Your task to perform on an android device: Search for seafood restaurants on Google Maps Image 0: 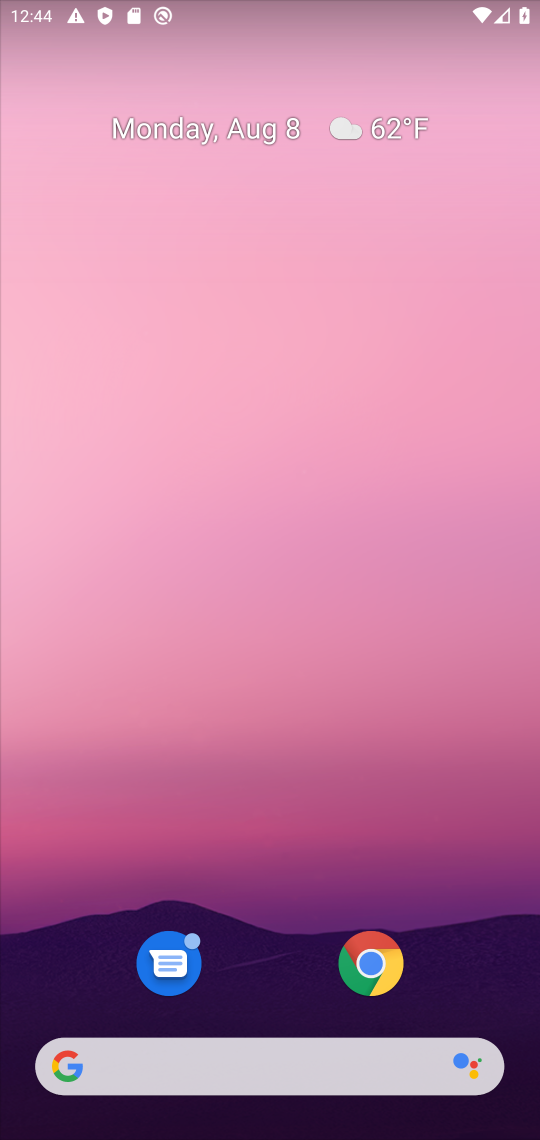
Step 0: drag from (474, 954) to (188, 64)
Your task to perform on an android device: Search for seafood restaurants on Google Maps Image 1: 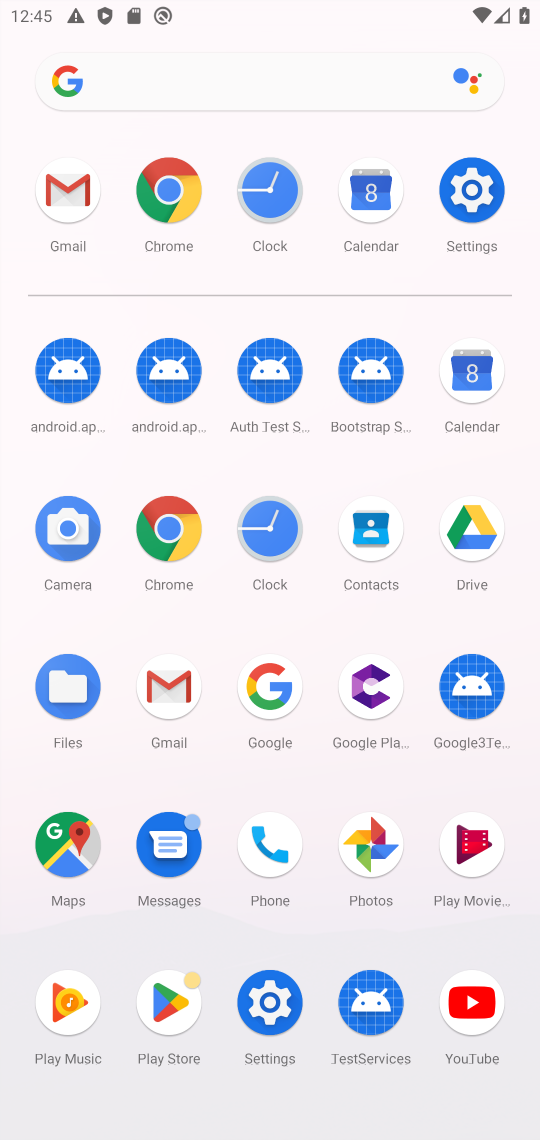
Step 1: click (59, 870)
Your task to perform on an android device: Search for seafood restaurants on Google Maps Image 2: 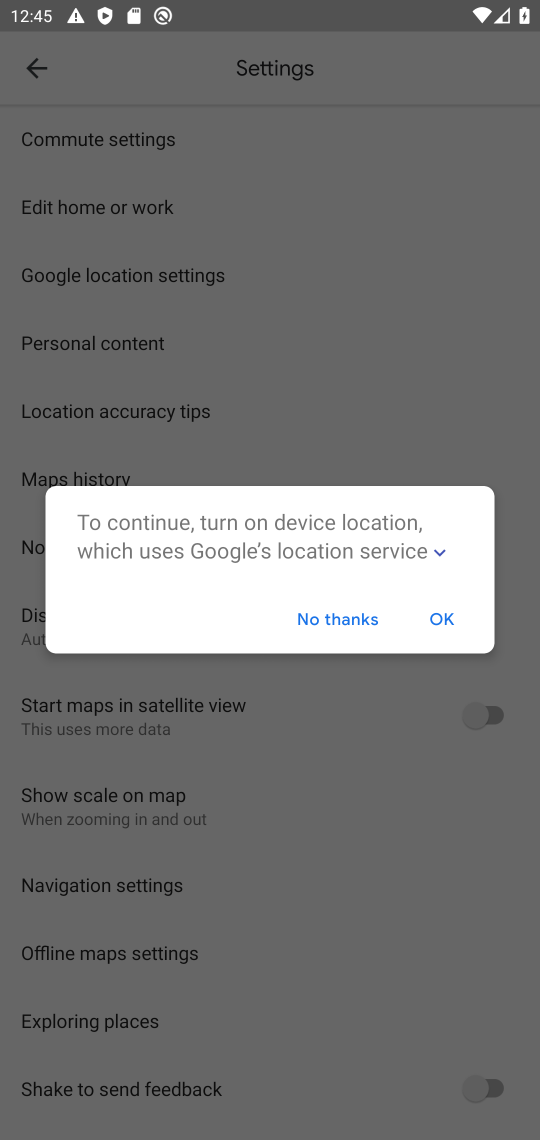
Step 2: click (348, 612)
Your task to perform on an android device: Search for seafood restaurants on Google Maps Image 3: 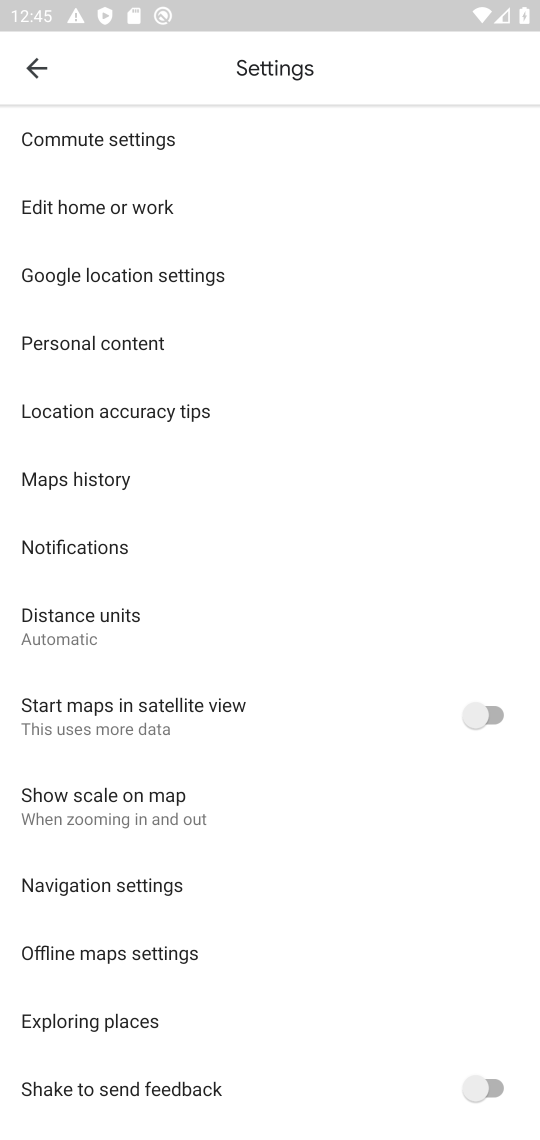
Step 3: press back button
Your task to perform on an android device: Search for seafood restaurants on Google Maps Image 4: 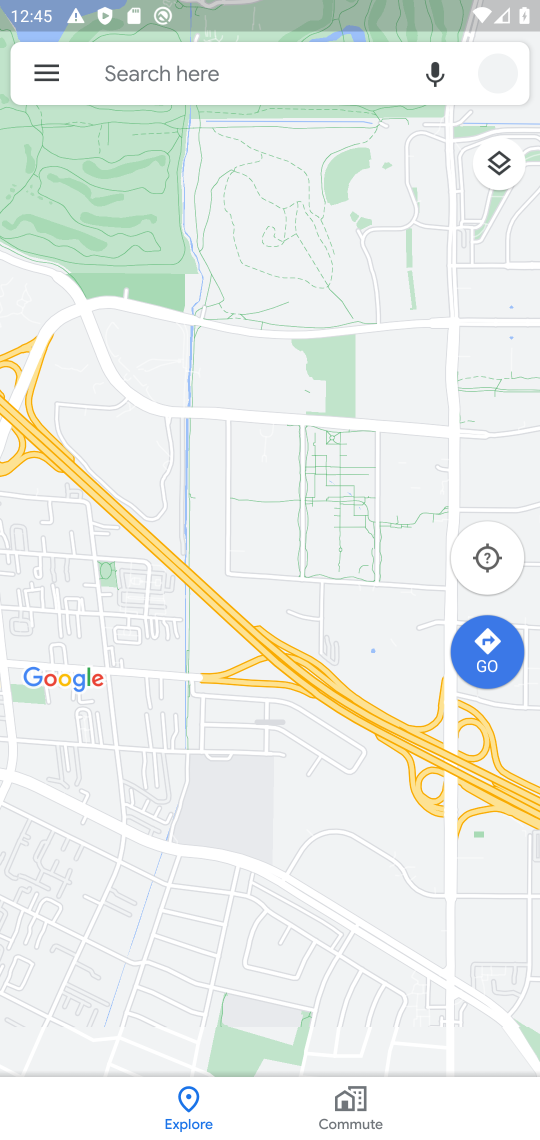
Step 4: click (164, 89)
Your task to perform on an android device: Search for seafood restaurants on Google Maps Image 5: 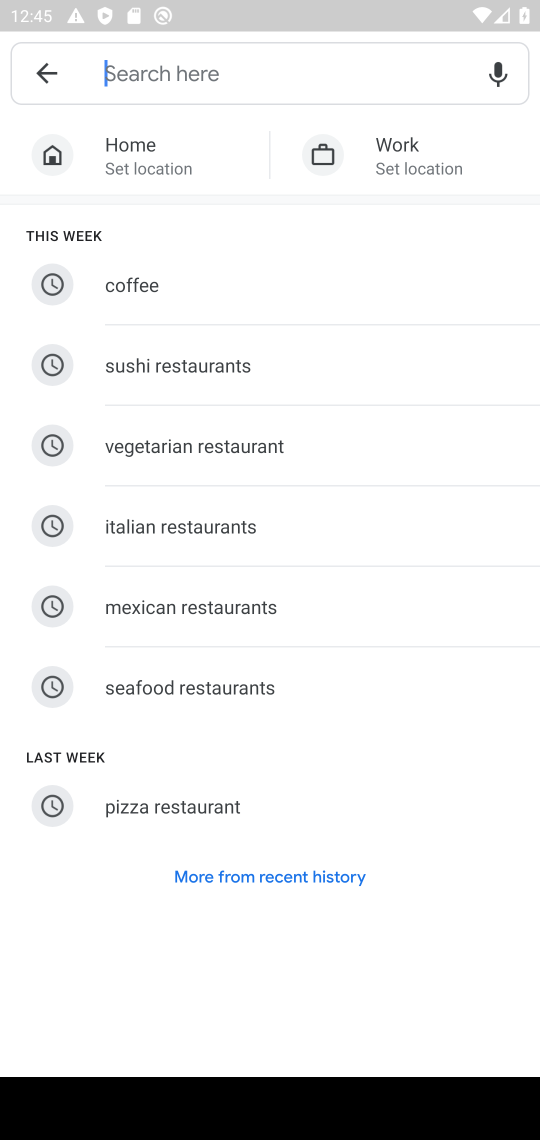
Step 5: click (208, 706)
Your task to perform on an android device: Search for seafood restaurants on Google Maps Image 6: 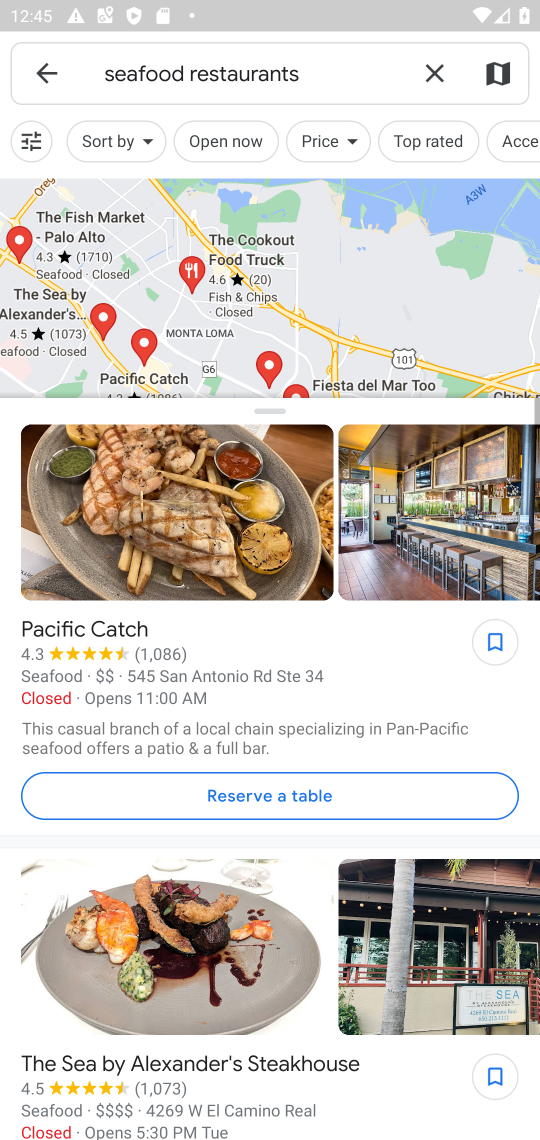
Step 6: task complete